Your task to perform on an android device: set the timer Image 0: 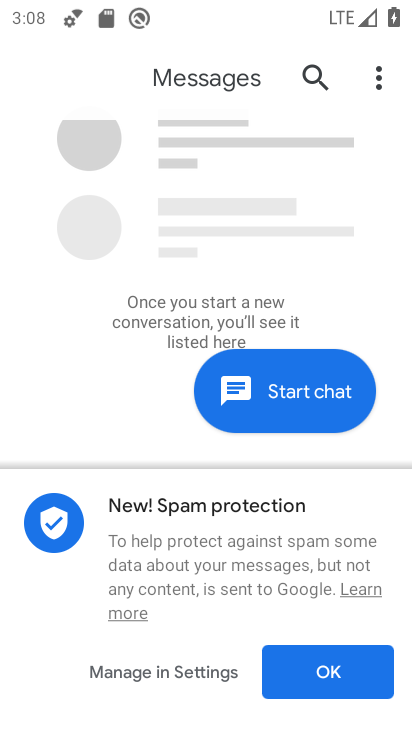
Step 0: press home button
Your task to perform on an android device: set the timer Image 1: 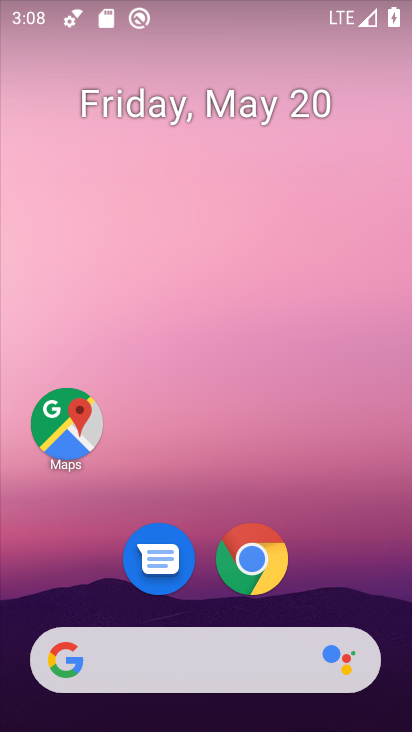
Step 1: drag from (218, 468) to (251, 66)
Your task to perform on an android device: set the timer Image 2: 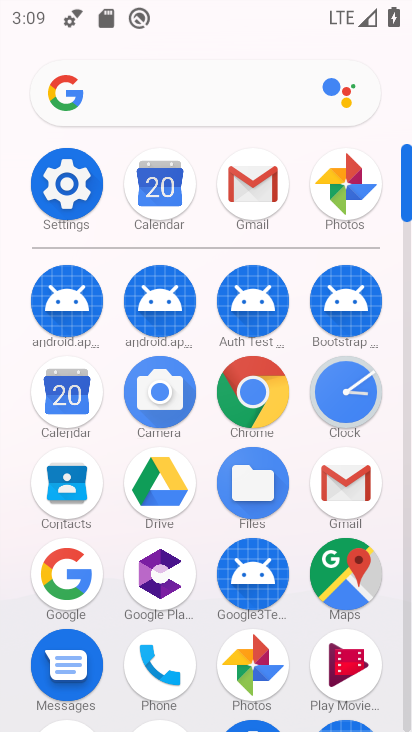
Step 2: click (164, 188)
Your task to perform on an android device: set the timer Image 3: 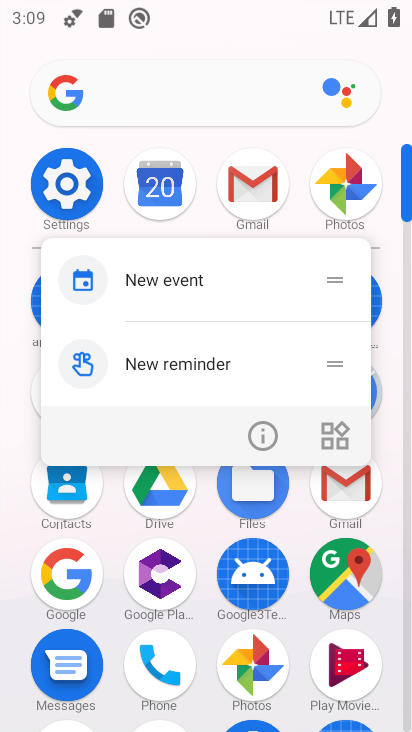
Step 3: click (112, 520)
Your task to perform on an android device: set the timer Image 4: 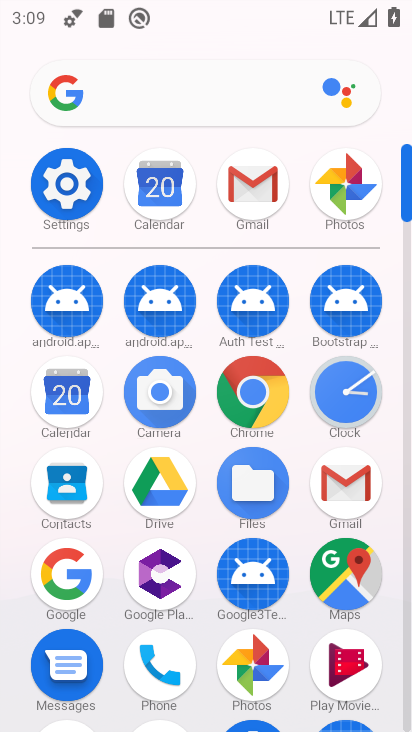
Step 4: click (340, 396)
Your task to perform on an android device: set the timer Image 5: 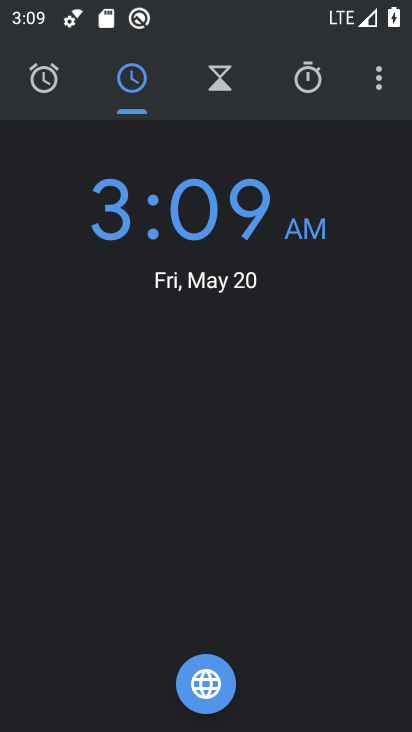
Step 5: click (306, 81)
Your task to perform on an android device: set the timer Image 6: 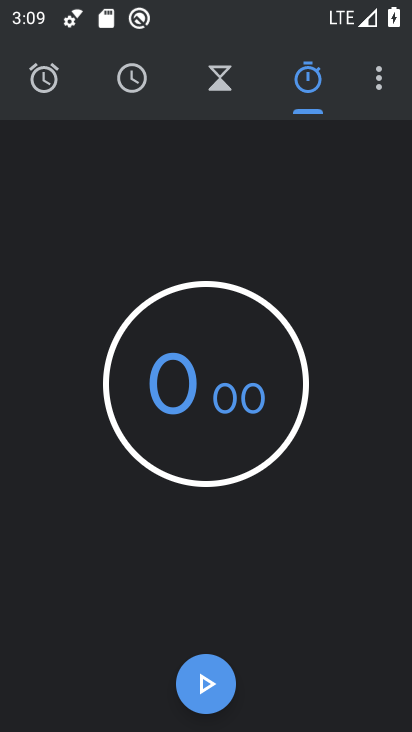
Step 6: click (224, 75)
Your task to perform on an android device: set the timer Image 7: 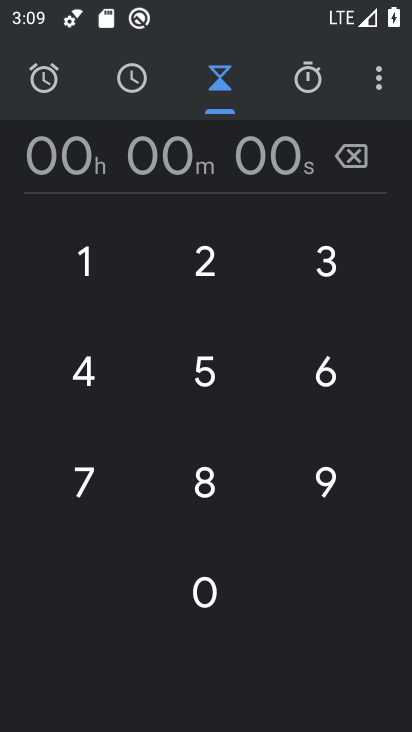
Step 7: click (91, 256)
Your task to perform on an android device: set the timer Image 8: 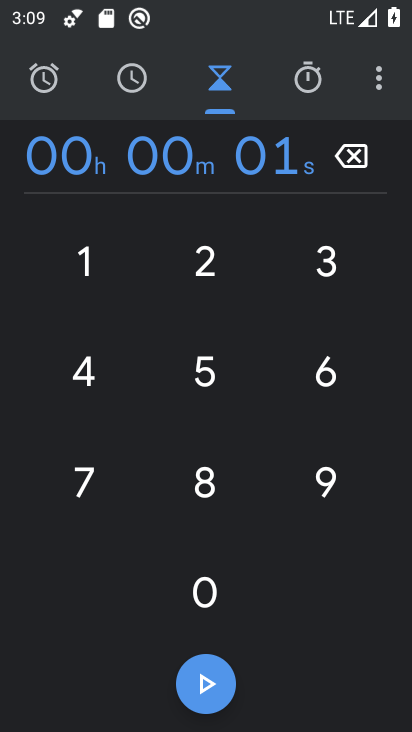
Step 8: click (91, 256)
Your task to perform on an android device: set the timer Image 9: 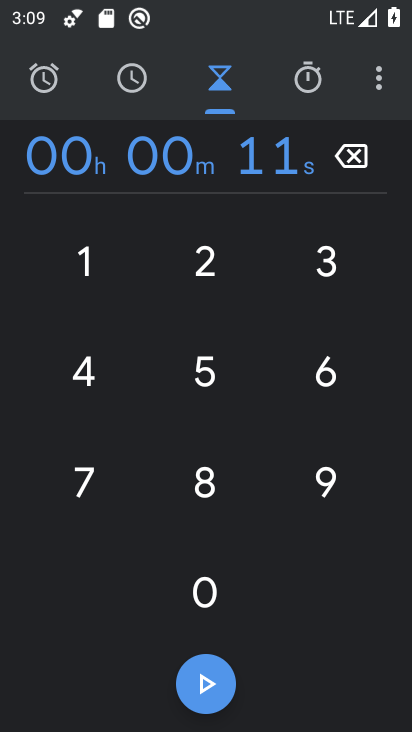
Step 9: task complete